Your task to perform on an android device: turn vacation reply on in the gmail app Image 0: 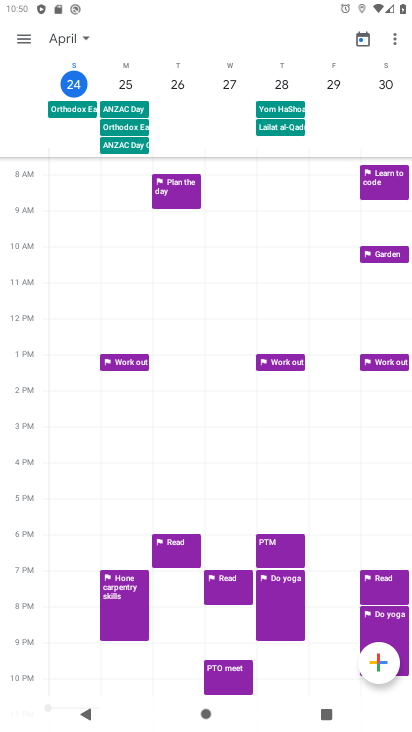
Step 0: press home button
Your task to perform on an android device: turn vacation reply on in the gmail app Image 1: 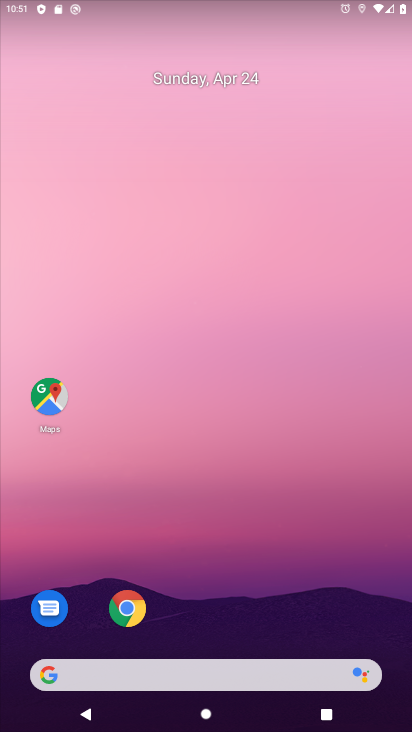
Step 1: drag from (343, 624) to (310, 27)
Your task to perform on an android device: turn vacation reply on in the gmail app Image 2: 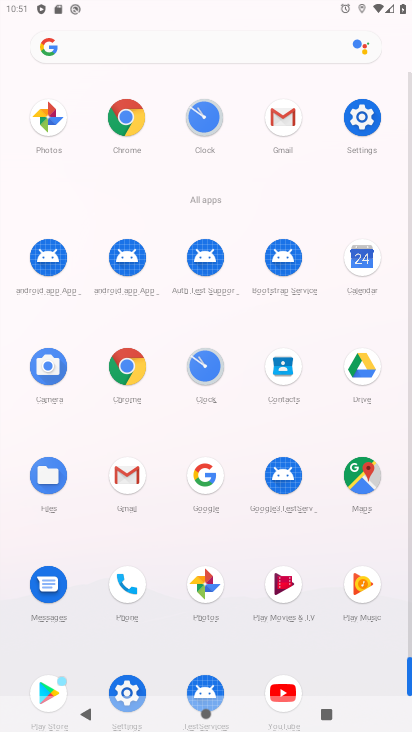
Step 2: click (125, 476)
Your task to perform on an android device: turn vacation reply on in the gmail app Image 3: 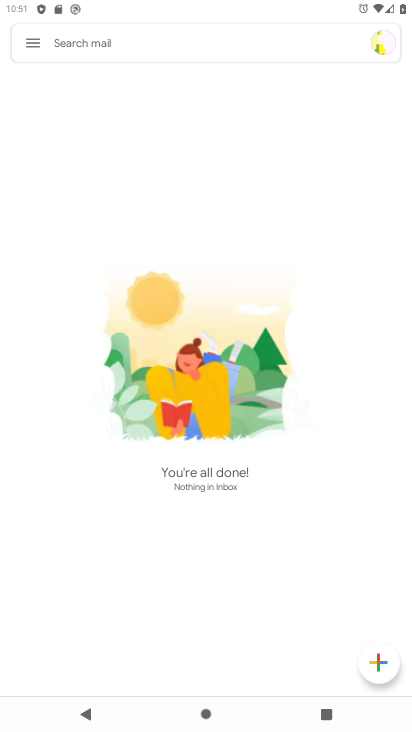
Step 3: click (31, 43)
Your task to perform on an android device: turn vacation reply on in the gmail app Image 4: 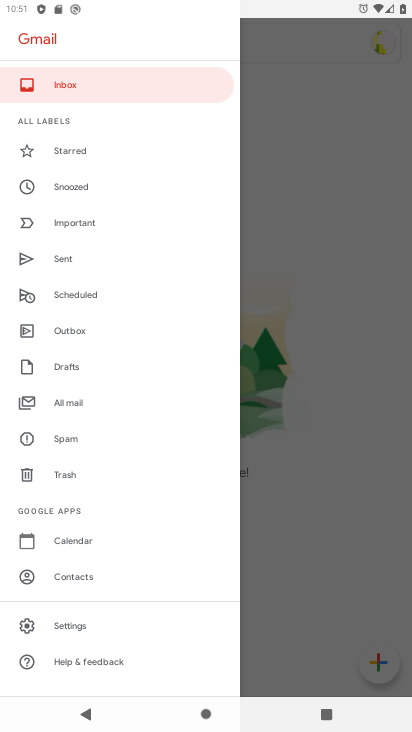
Step 4: click (63, 624)
Your task to perform on an android device: turn vacation reply on in the gmail app Image 5: 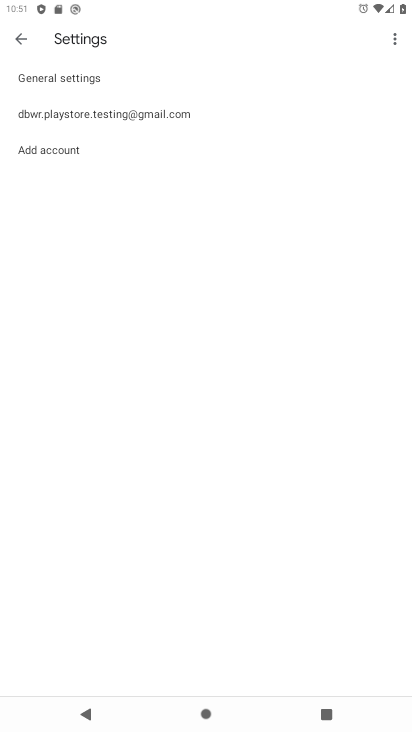
Step 5: click (105, 118)
Your task to perform on an android device: turn vacation reply on in the gmail app Image 6: 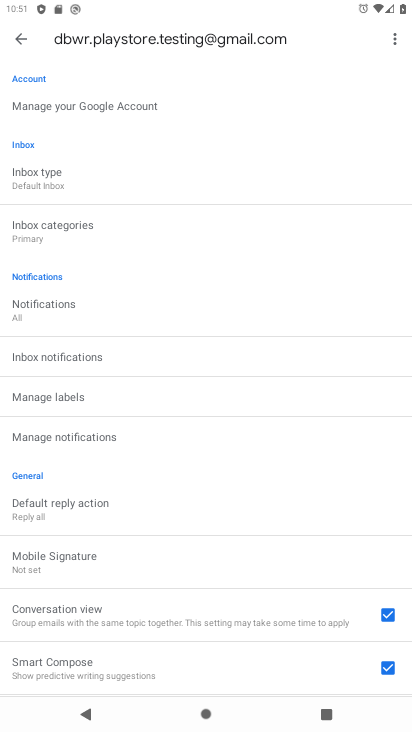
Step 6: drag from (215, 494) to (343, 9)
Your task to perform on an android device: turn vacation reply on in the gmail app Image 7: 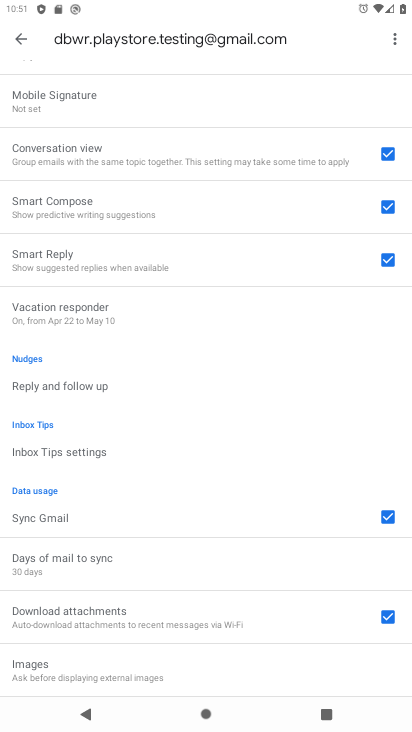
Step 7: click (42, 310)
Your task to perform on an android device: turn vacation reply on in the gmail app Image 8: 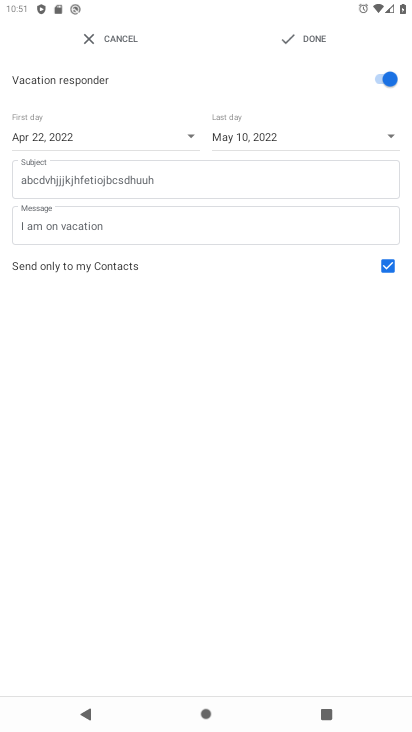
Step 8: task complete